Your task to perform on an android device: toggle sleep mode Image 0: 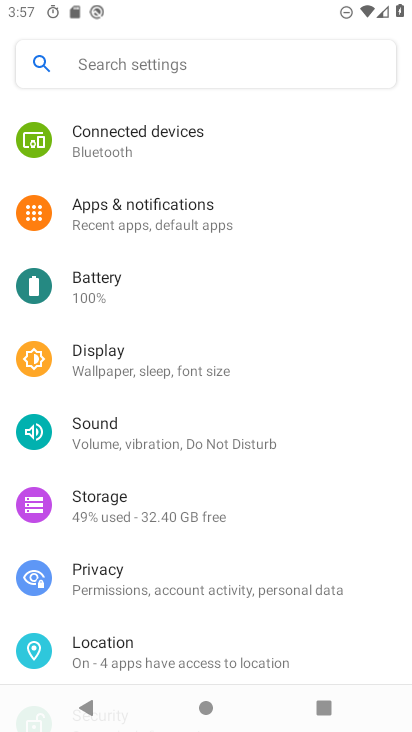
Step 0: click (142, 382)
Your task to perform on an android device: toggle sleep mode Image 1: 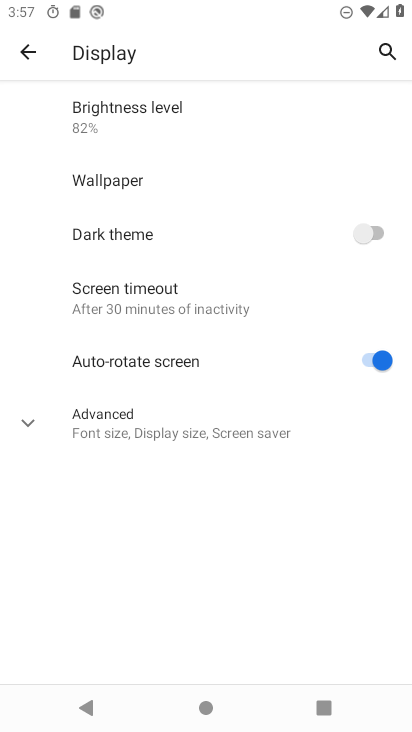
Step 1: click (175, 438)
Your task to perform on an android device: toggle sleep mode Image 2: 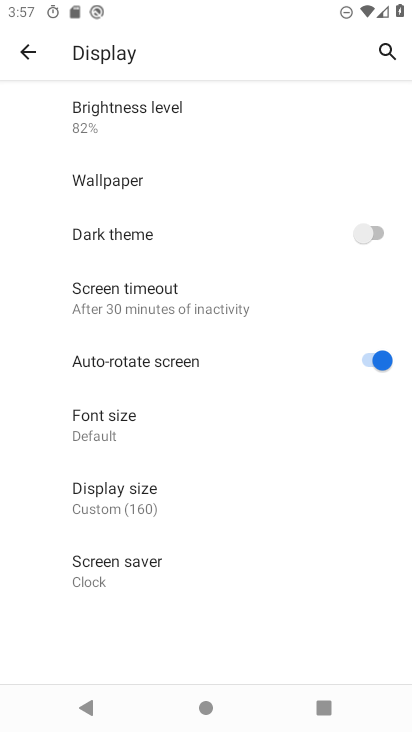
Step 2: task complete